Your task to perform on an android device: Open eBay Image 0: 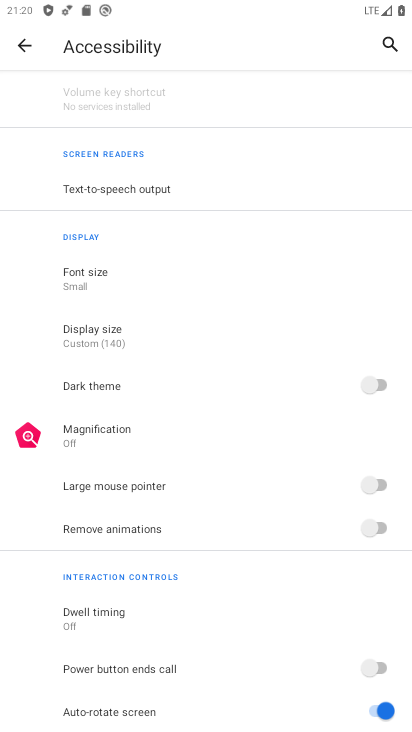
Step 0: press home button
Your task to perform on an android device: Open eBay Image 1: 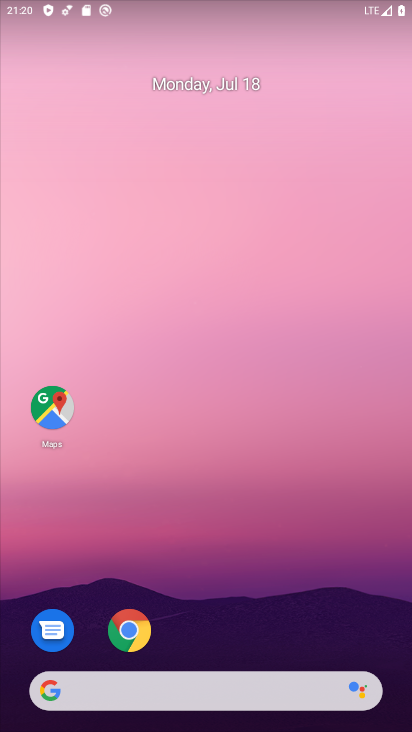
Step 1: drag from (233, 665) to (255, 109)
Your task to perform on an android device: Open eBay Image 2: 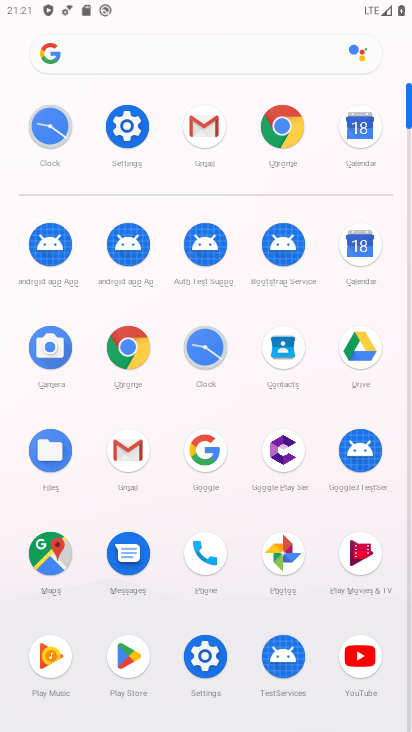
Step 2: click (293, 127)
Your task to perform on an android device: Open eBay Image 3: 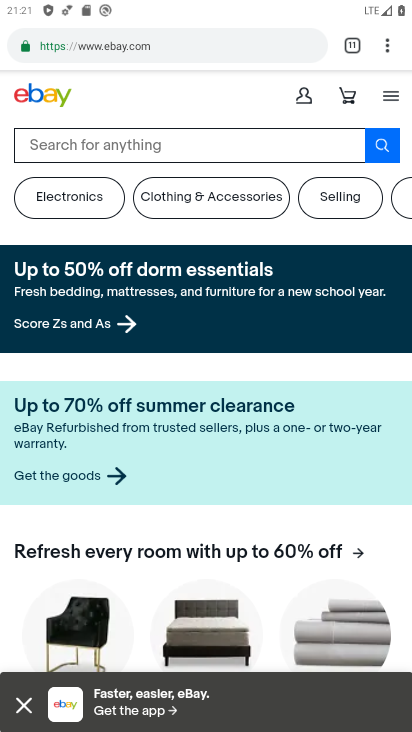
Step 3: task complete